Your task to perform on an android device: Go to network settings Image 0: 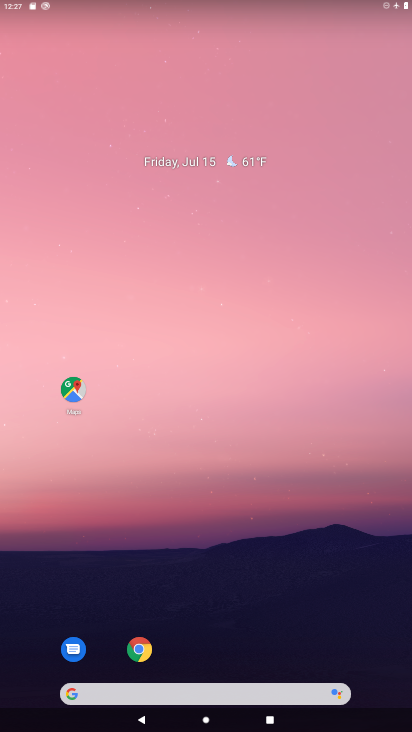
Step 0: drag from (242, 658) to (309, 4)
Your task to perform on an android device: Go to network settings Image 1: 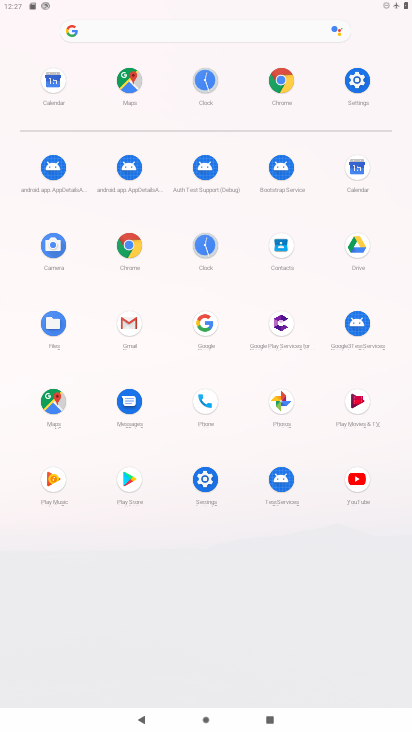
Step 1: click (351, 97)
Your task to perform on an android device: Go to network settings Image 2: 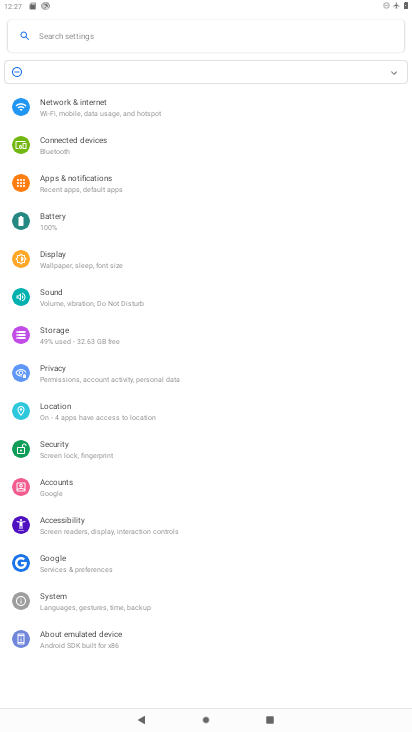
Step 2: click (57, 108)
Your task to perform on an android device: Go to network settings Image 3: 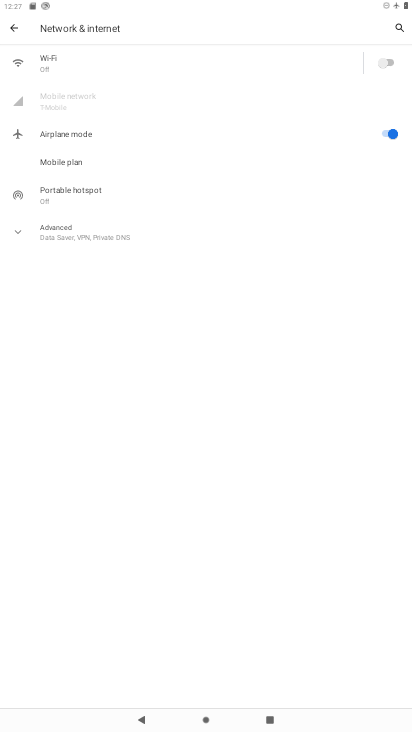
Step 3: task complete